Your task to perform on an android device: Open Reddit.com Image 0: 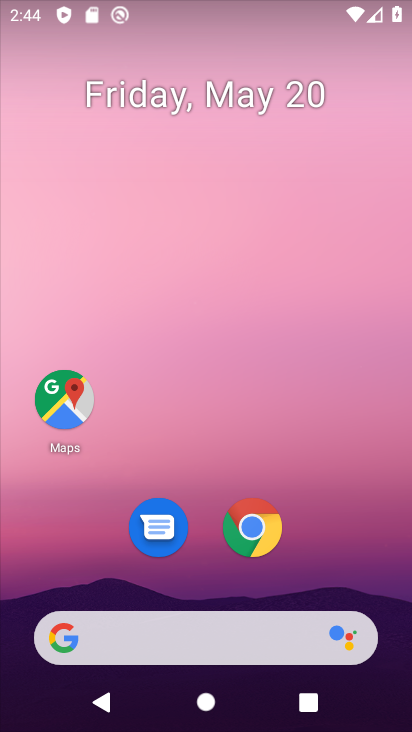
Step 0: click (254, 535)
Your task to perform on an android device: Open Reddit.com Image 1: 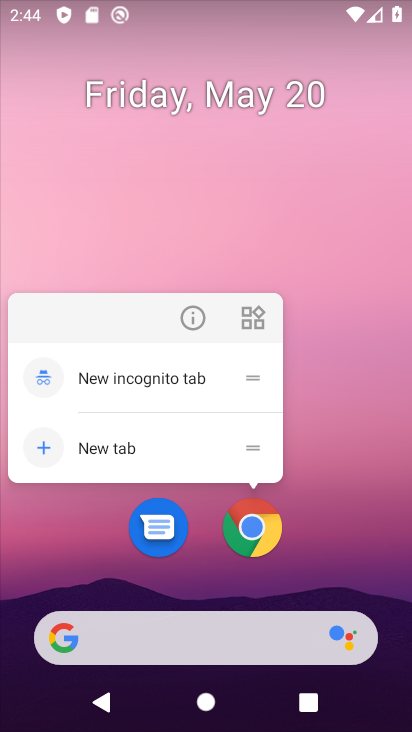
Step 1: click (254, 530)
Your task to perform on an android device: Open Reddit.com Image 2: 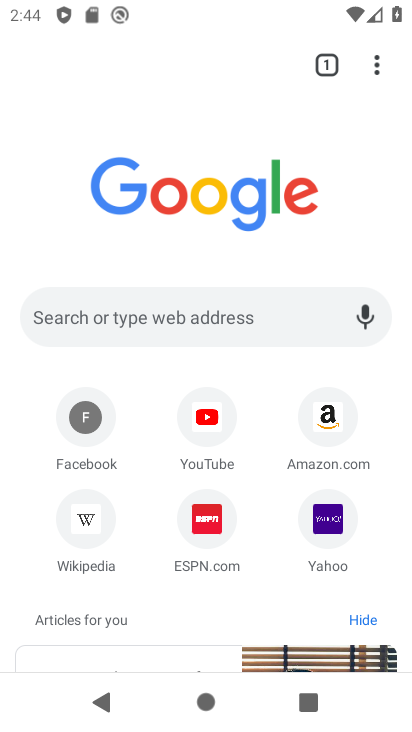
Step 2: click (139, 314)
Your task to perform on an android device: Open Reddit.com Image 3: 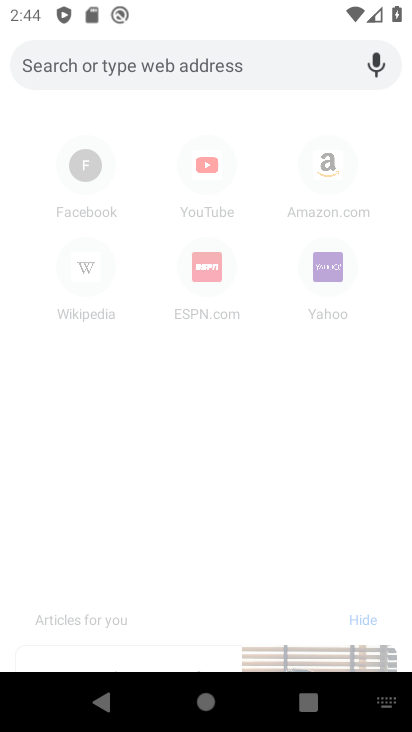
Step 3: type "reddit.com"
Your task to perform on an android device: Open Reddit.com Image 4: 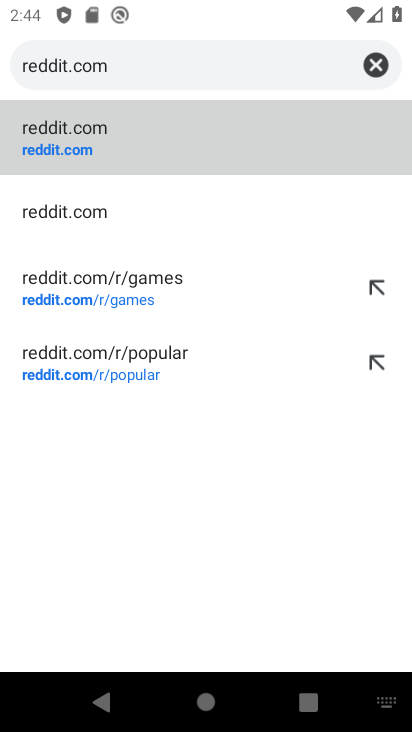
Step 4: click (156, 146)
Your task to perform on an android device: Open Reddit.com Image 5: 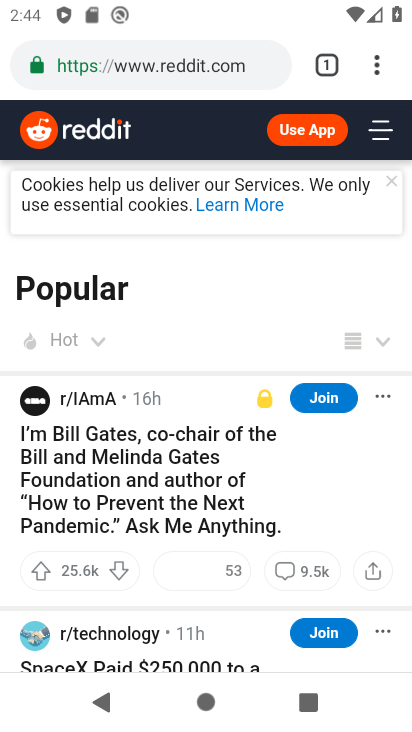
Step 5: task complete